Your task to perform on an android device: turn off wifi Image 0: 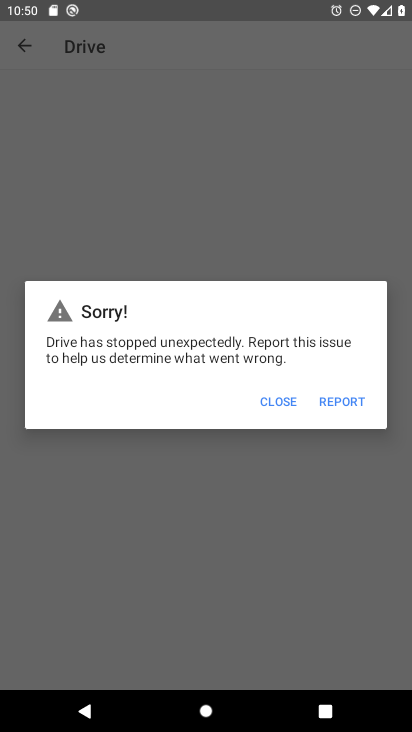
Step 0: drag from (118, 8) to (247, 442)
Your task to perform on an android device: turn off wifi Image 1: 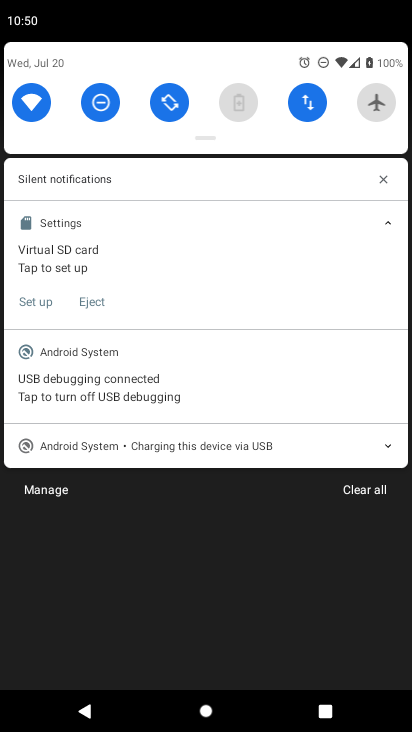
Step 1: click (29, 96)
Your task to perform on an android device: turn off wifi Image 2: 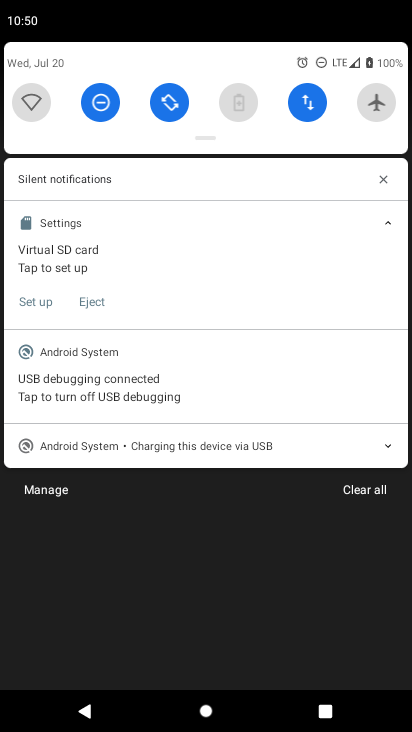
Step 2: task complete